Your task to perform on an android device: Go to network settings Image 0: 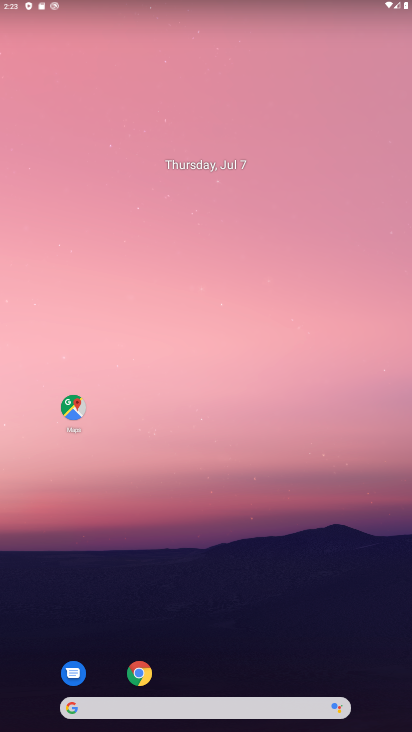
Step 0: drag from (272, 629) to (218, 47)
Your task to perform on an android device: Go to network settings Image 1: 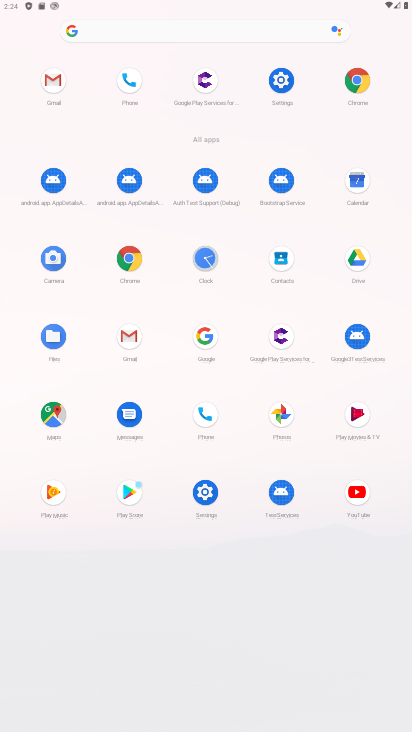
Step 1: click (281, 83)
Your task to perform on an android device: Go to network settings Image 2: 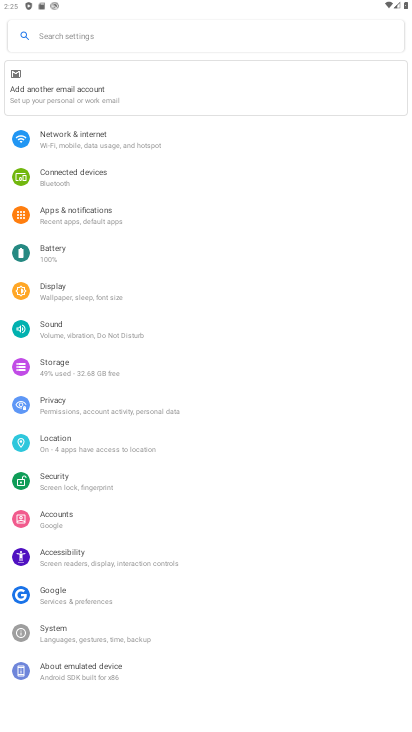
Step 2: click (107, 135)
Your task to perform on an android device: Go to network settings Image 3: 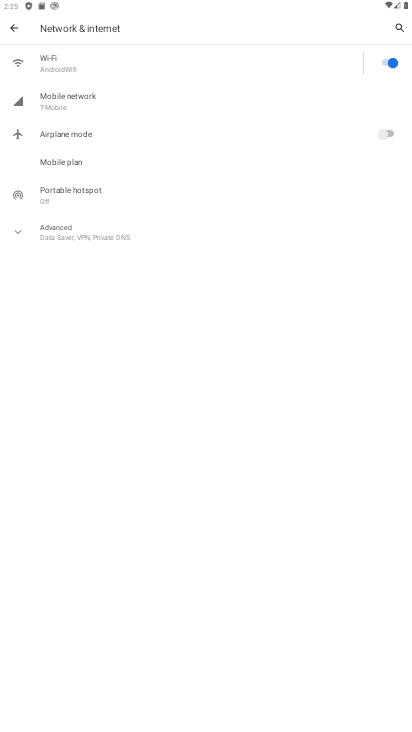
Step 3: task complete